Your task to perform on an android device: Do I have any events this weekend? Image 0: 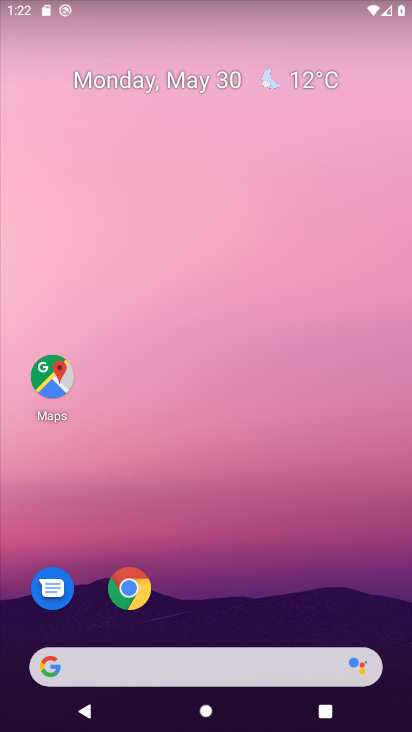
Step 0: drag from (231, 624) to (287, 262)
Your task to perform on an android device: Do I have any events this weekend? Image 1: 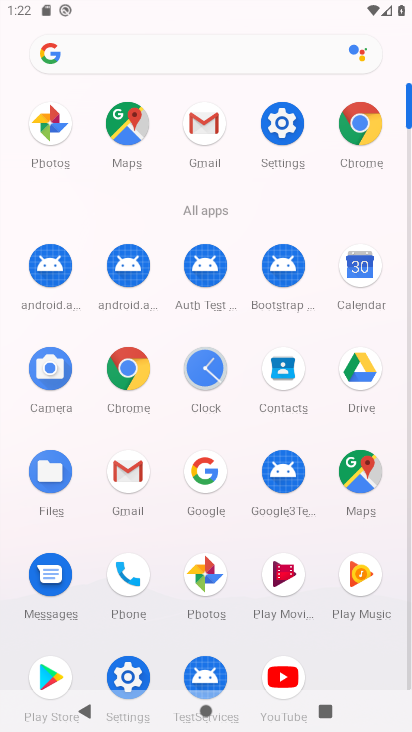
Step 1: click (354, 281)
Your task to perform on an android device: Do I have any events this weekend? Image 2: 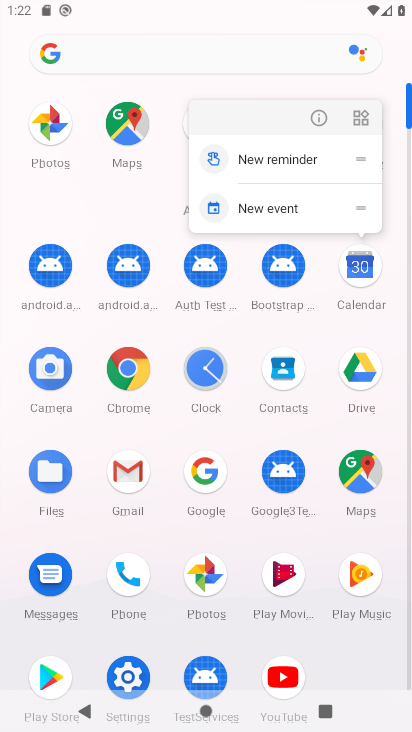
Step 2: click (350, 271)
Your task to perform on an android device: Do I have any events this weekend? Image 3: 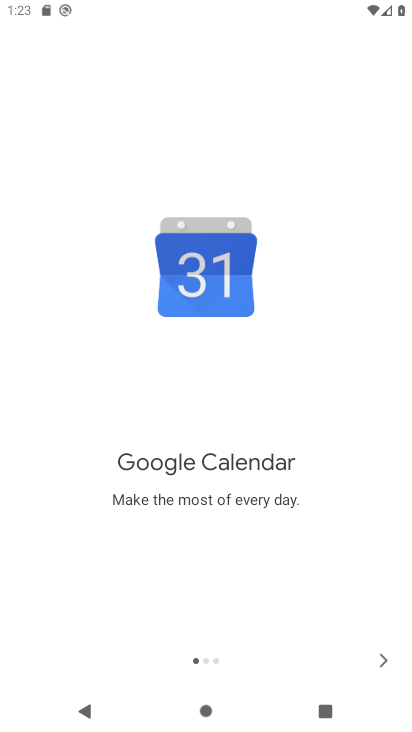
Step 3: click (379, 671)
Your task to perform on an android device: Do I have any events this weekend? Image 4: 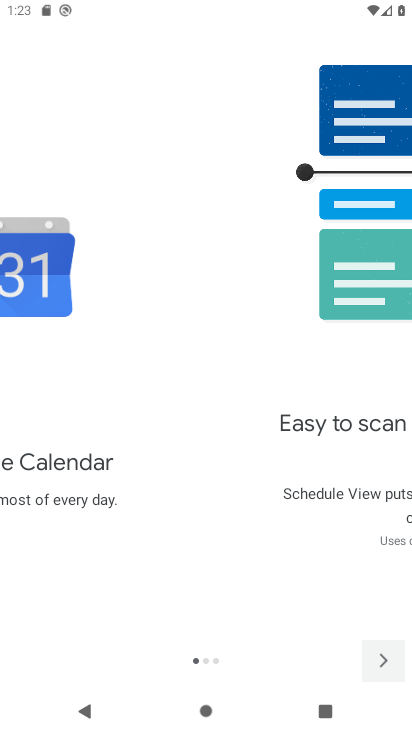
Step 4: click (379, 670)
Your task to perform on an android device: Do I have any events this weekend? Image 5: 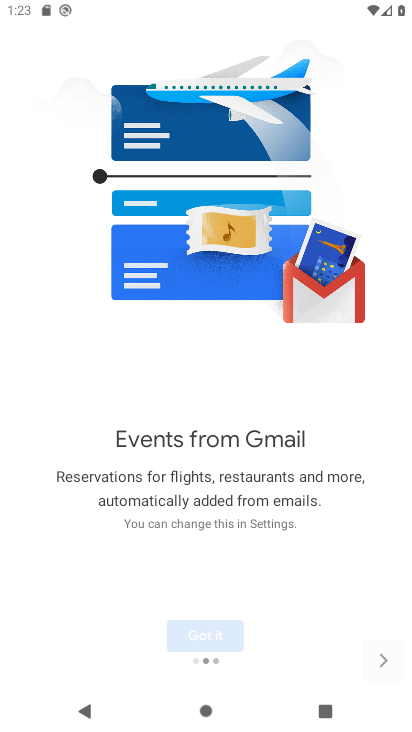
Step 5: click (378, 669)
Your task to perform on an android device: Do I have any events this weekend? Image 6: 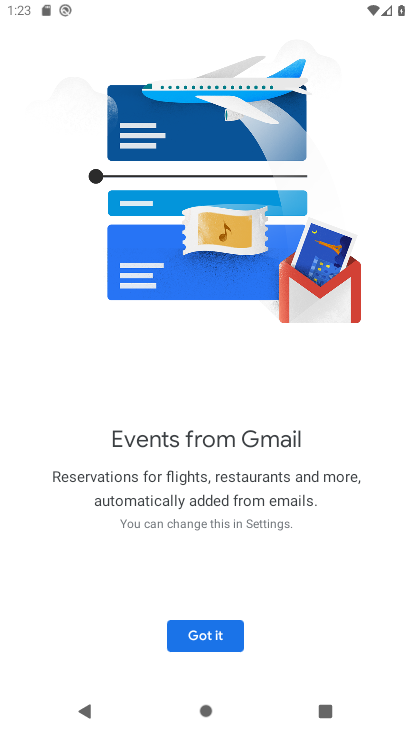
Step 6: click (218, 645)
Your task to perform on an android device: Do I have any events this weekend? Image 7: 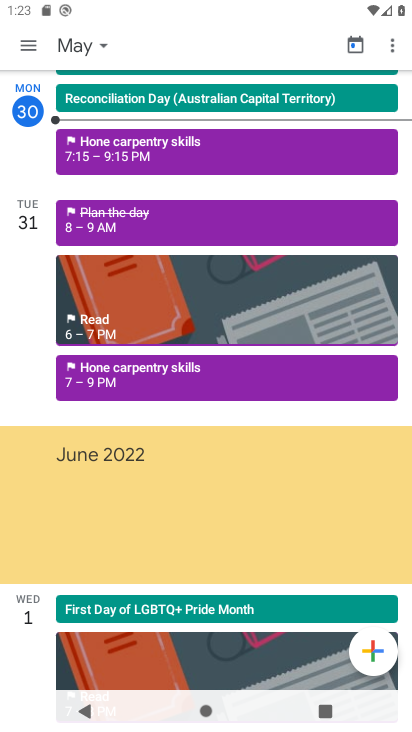
Step 7: task complete